Your task to perform on an android device: Show me popular games on the Play Store Image 0: 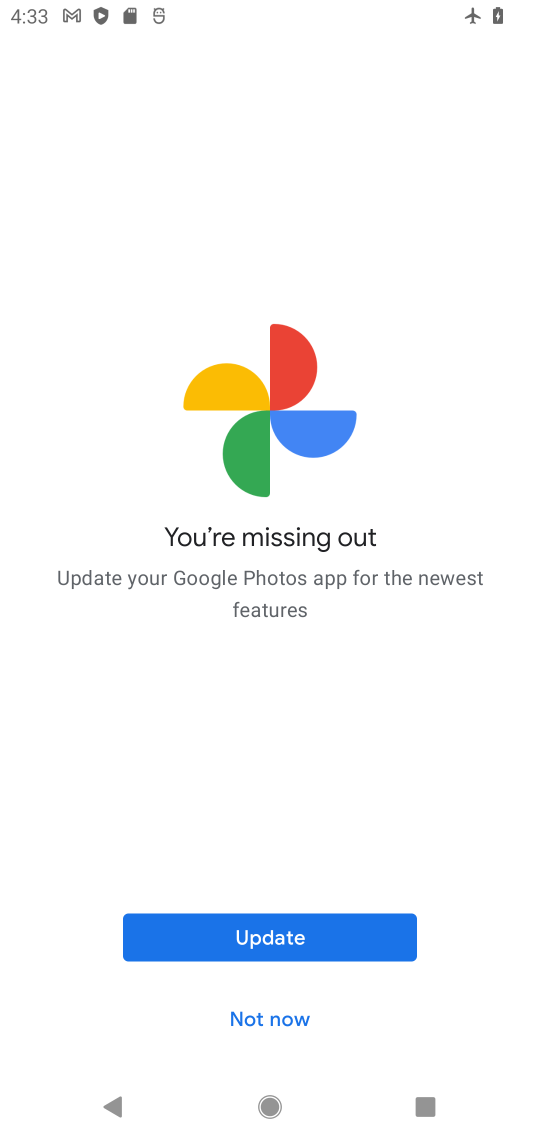
Step 0: press home button
Your task to perform on an android device: Show me popular games on the Play Store Image 1: 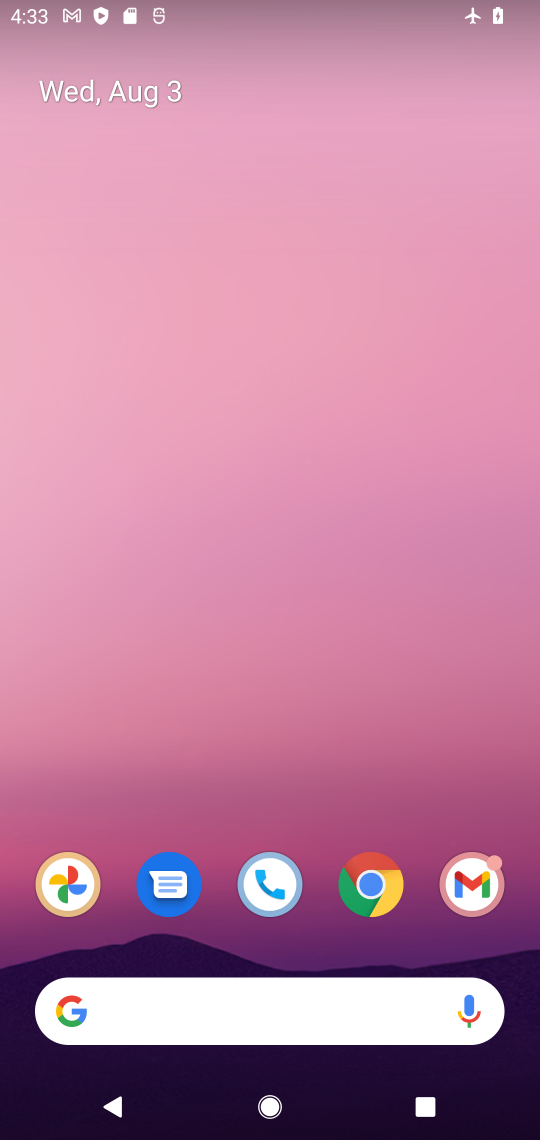
Step 1: drag from (357, 868) to (425, 142)
Your task to perform on an android device: Show me popular games on the Play Store Image 2: 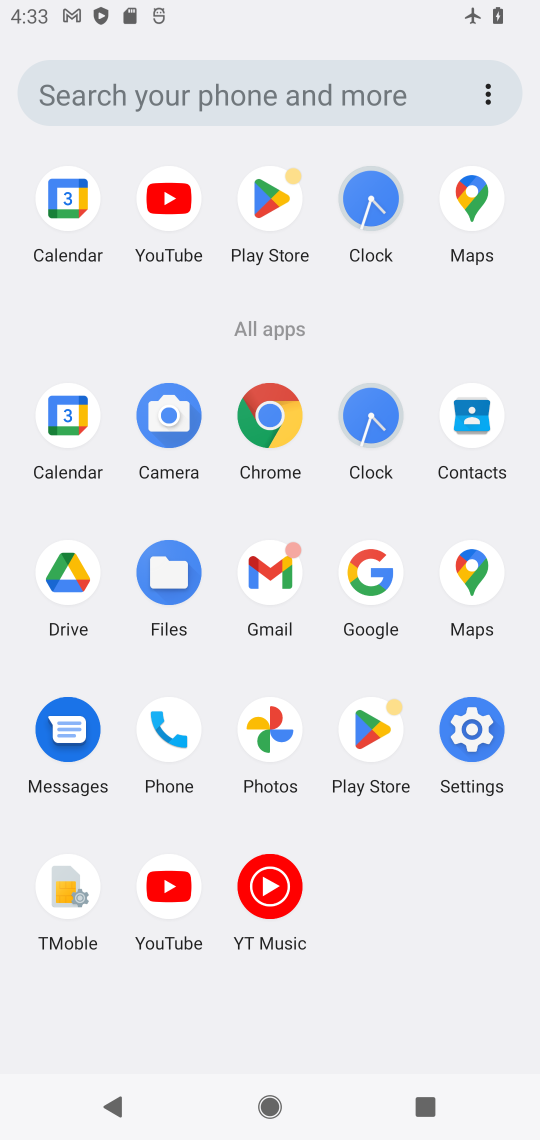
Step 2: click (278, 195)
Your task to perform on an android device: Show me popular games on the Play Store Image 3: 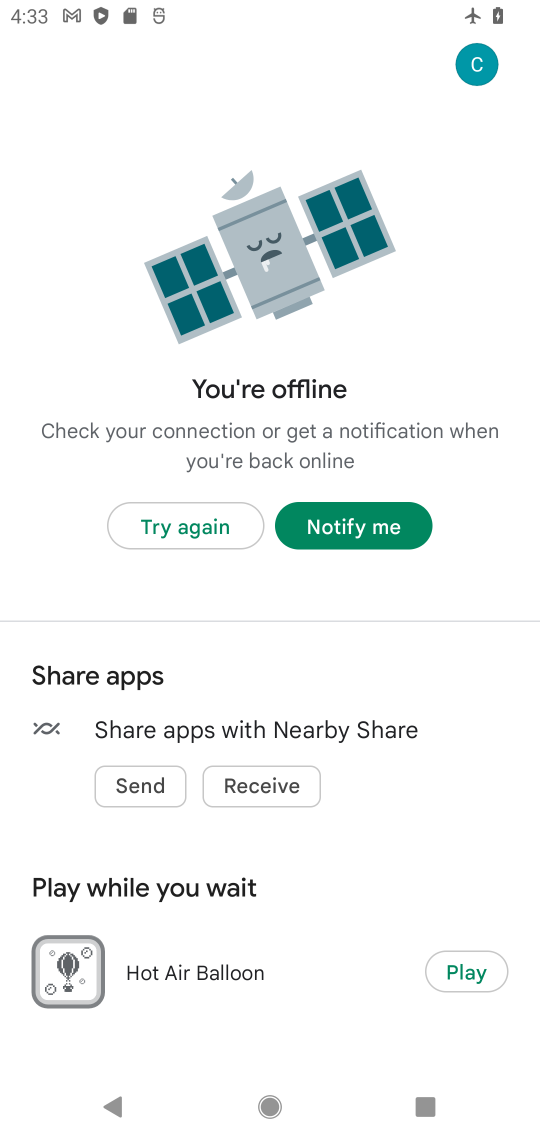
Step 3: click (217, 531)
Your task to perform on an android device: Show me popular games on the Play Store Image 4: 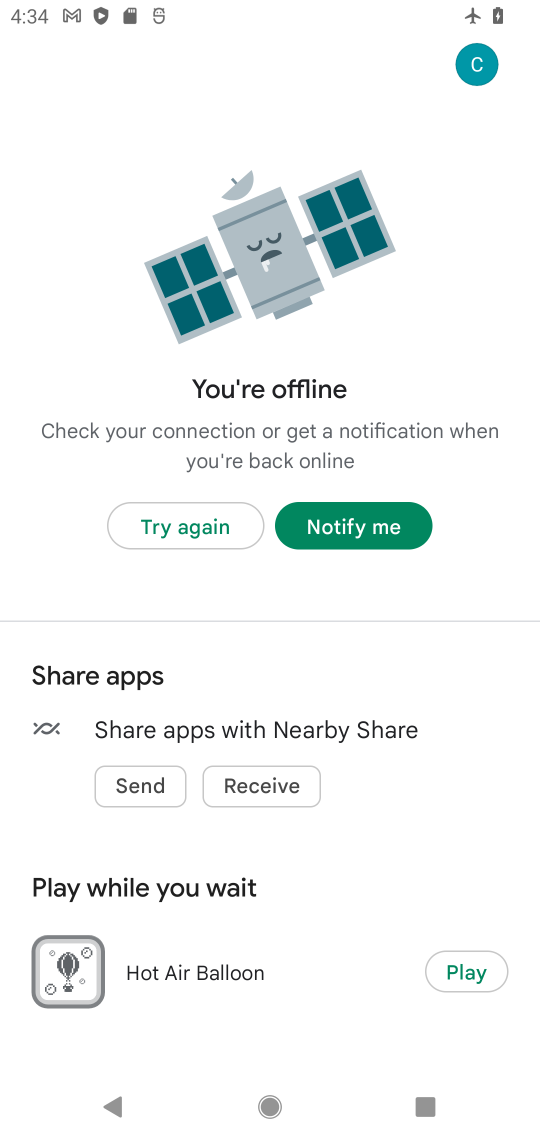
Step 4: click (156, 531)
Your task to perform on an android device: Show me popular games on the Play Store Image 5: 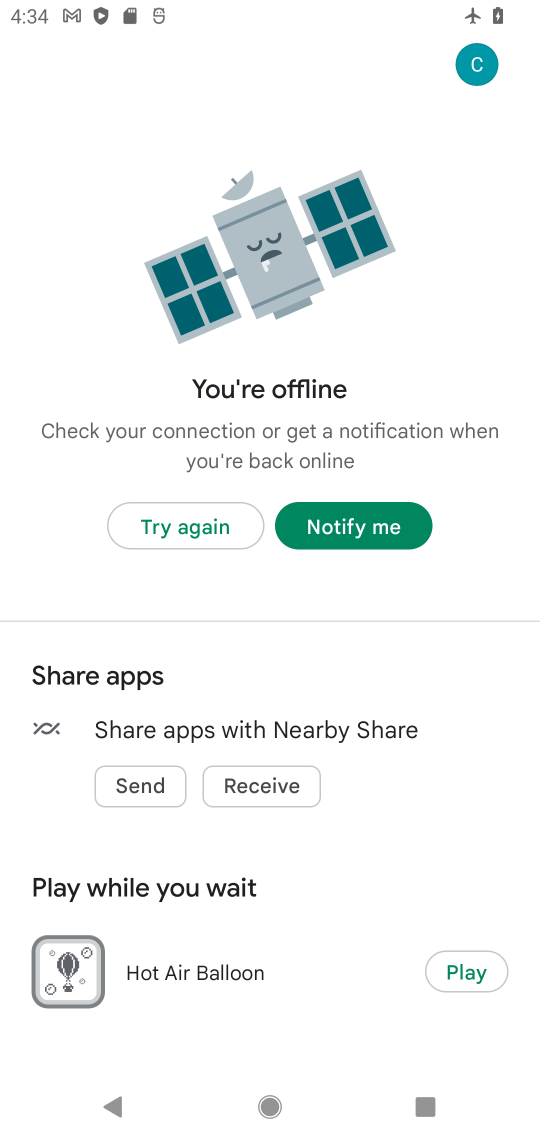
Step 5: task complete